Your task to perform on an android device: Open Youtube and go to "Your channel" Image 0: 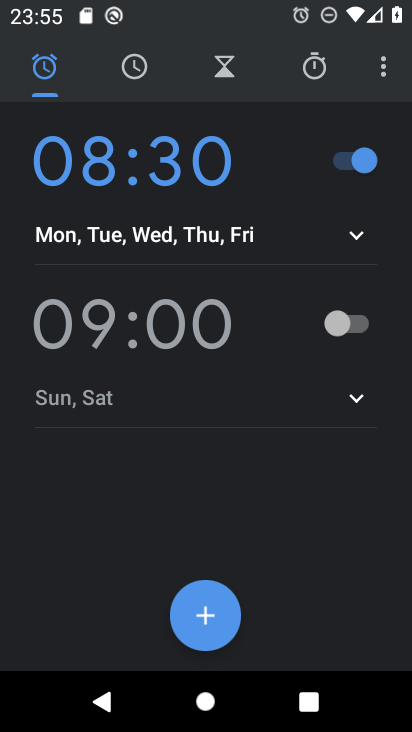
Step 0: press home button
Your task to perform on an android device: Open Youtube and go to "Your channel" Image 1: 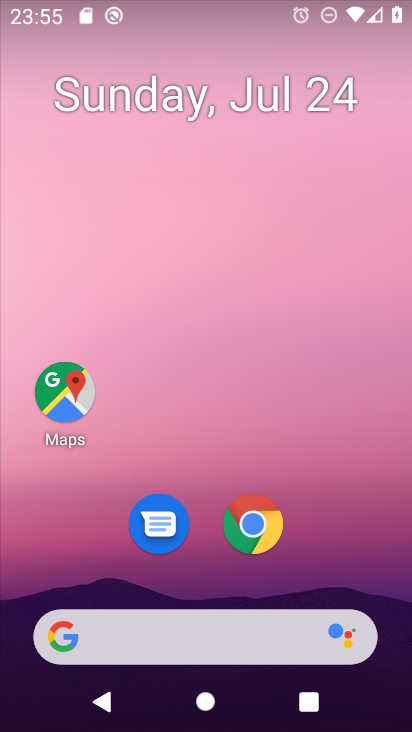
Step 1: drag from (196, 636) to (308, 109)
Your task to perform on an android device: Open Youtube and go to "Your channel" Image 2: 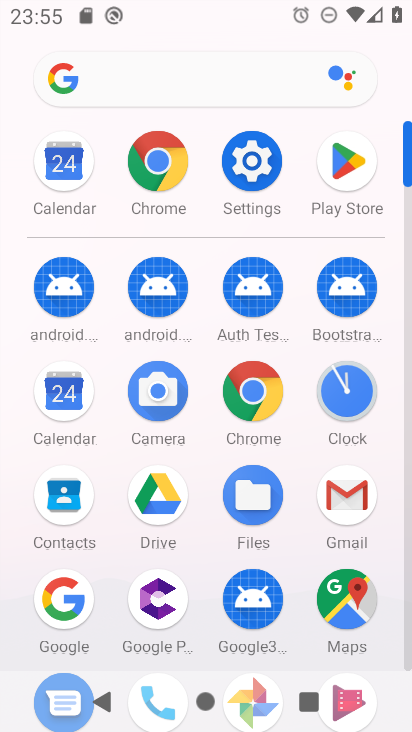
Step 2: drag from (206, 598) to (281, 163)
Your task to perform on an android device: Open Youtube and go to "Your channel" Image 3: 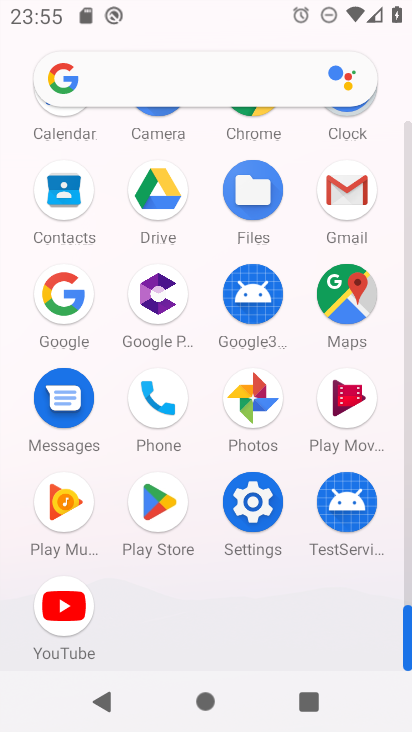
Step 3: click (74, 612)
Your task to perform on an android device: Open Youtube and go to "Your channel" Image 4: 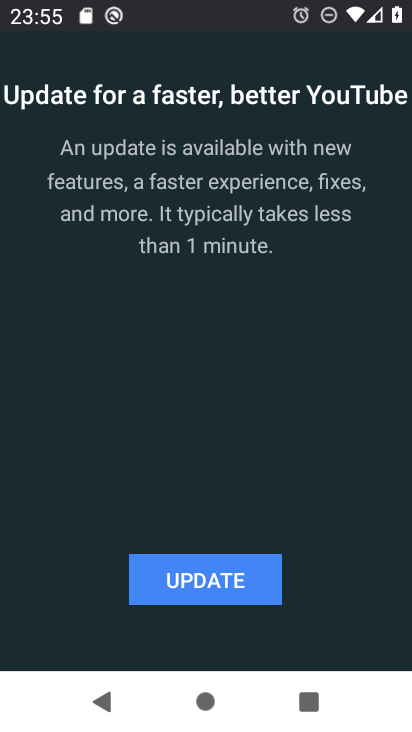
Step 4: click (217, 573)
Your task to perform on an android device: Open Youtube and go to "Your channel" Image 5: 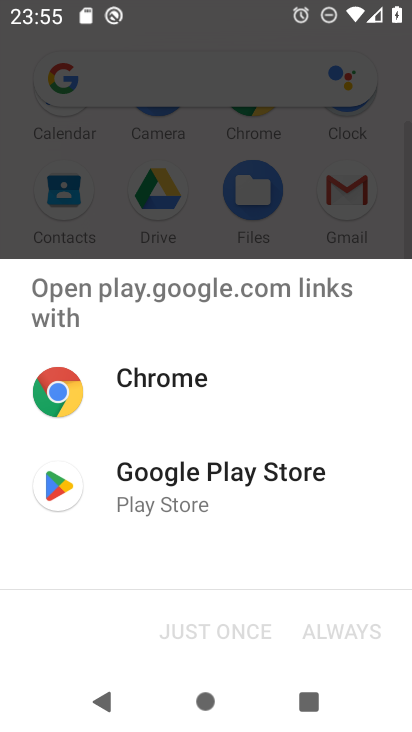
Step 5: click (219, 470)
Your task to perform on an android device: Open Youtube and go to "Your channel" Image 6: 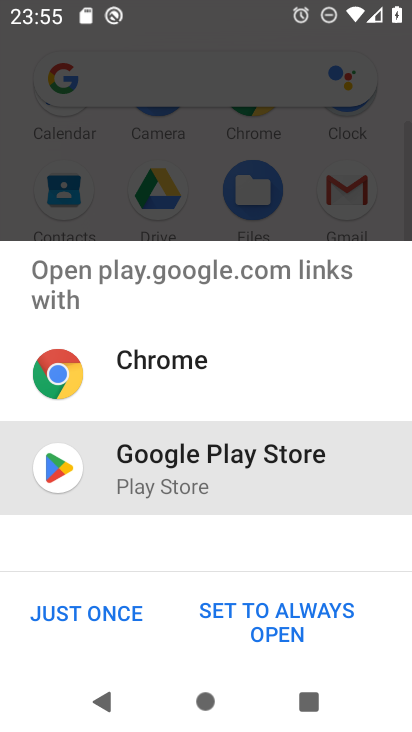
Step 6: click (120, 615)
Your task to perform on an android device: Open Youtube and go to "Your channel" Image 7: 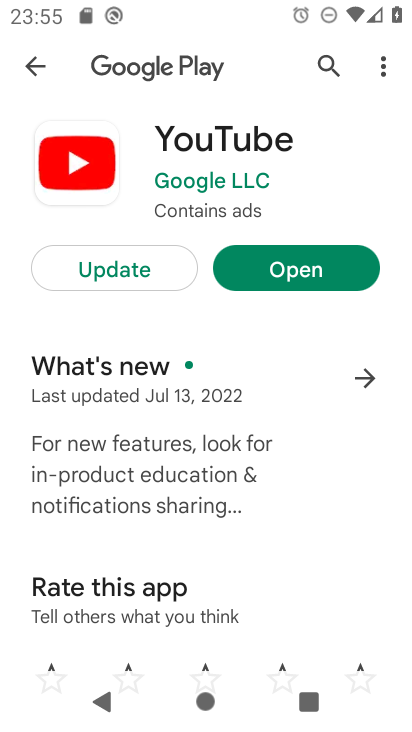
Step 7: click (111, 269)
Your task to perform on an android device: Open Youtube and go to "Your channel" Image 8: 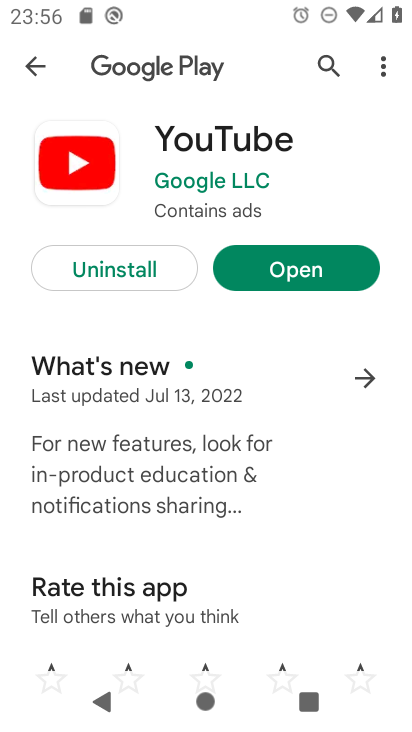
Step 8: click (309, 272)
Your task to perform on an android device: Open Youtube and go to "Your channel" Image 9: 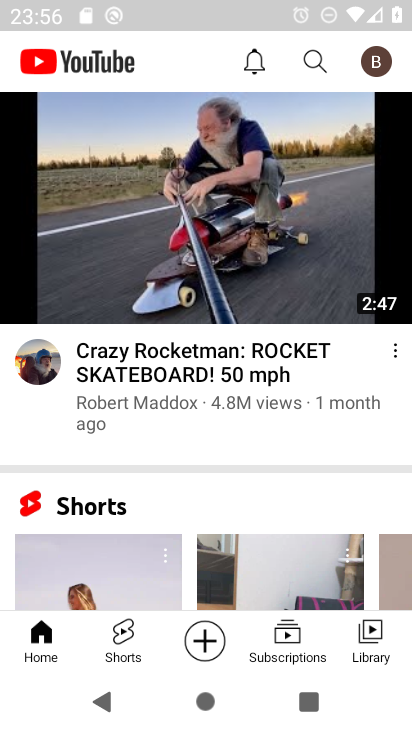
Step 9: click (370, 61)
Your task to perform on an android device: Open Youtube and go to "Your channel" Image 10: 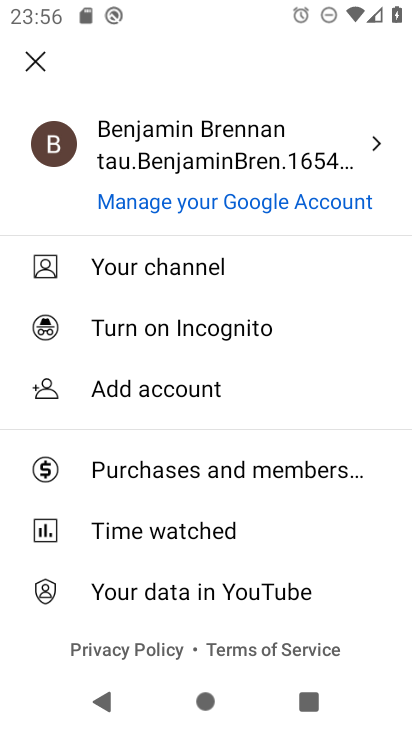
Step 10: click (176, 267)
Your task to perform on an android device: Open Youtube and go to "Your channel" Image 11: 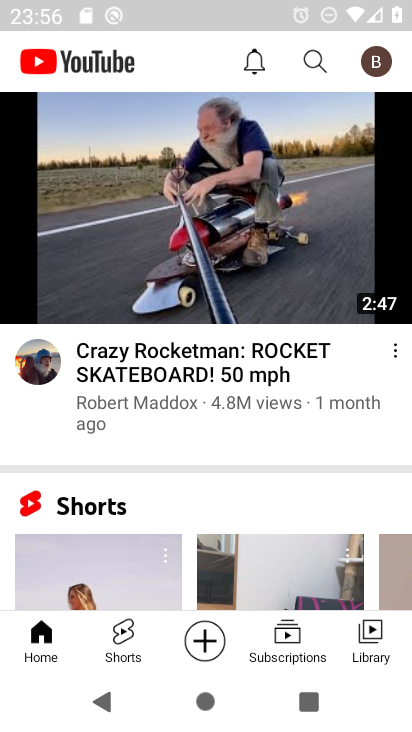
Step 11: click (380, 67)
Your task to perform on an android device: Open Youtube and go to "Your channel" Image 12: 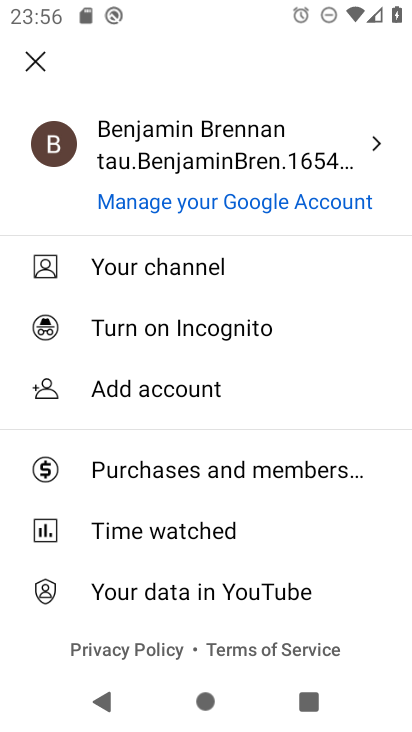
Step 12: click (185, 267)
Your task to perform on an android device: Open Youtube and go to "Your channel" Image 13: 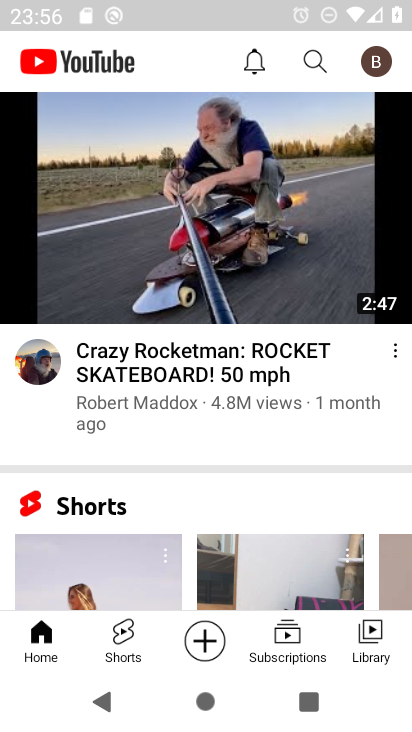
Step 13: click (381, 70)
Your task to perform on an android device: Open Youtube and go to "Your channel" Image 14: 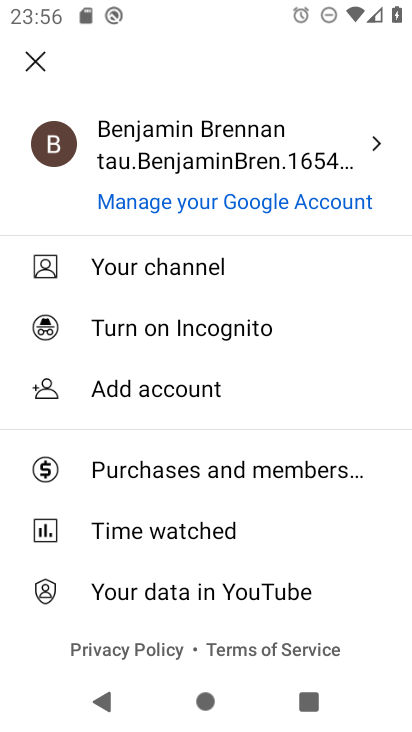
Step 14: click (146, 272)
Your task to perform on an android device: Open Youtube and go to "Your channel" Image 15: 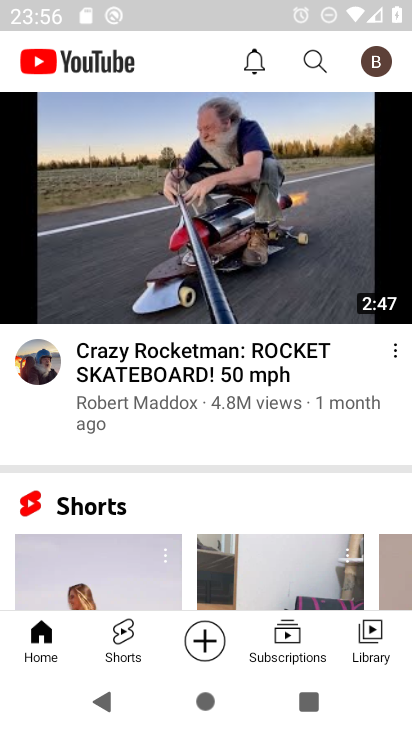
Step 15: task complete